Your task to perform on an android device: Clear all items from cart on walmart.com. Image 0: 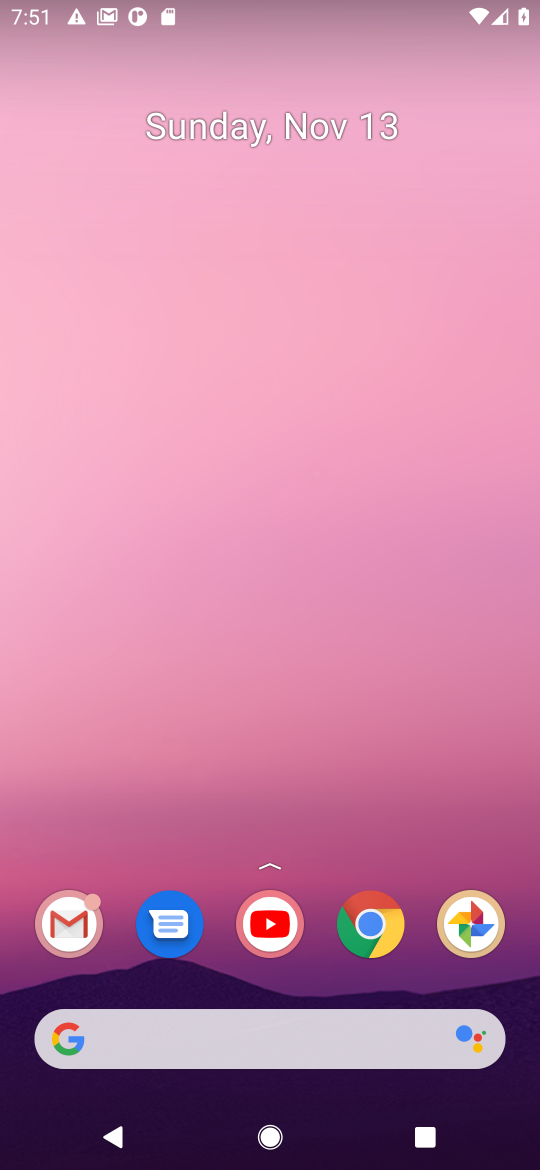
Step 0: click (379, 920)
Your task to perform on an android device: Clear all items from cart on walmart.com. Image 1: 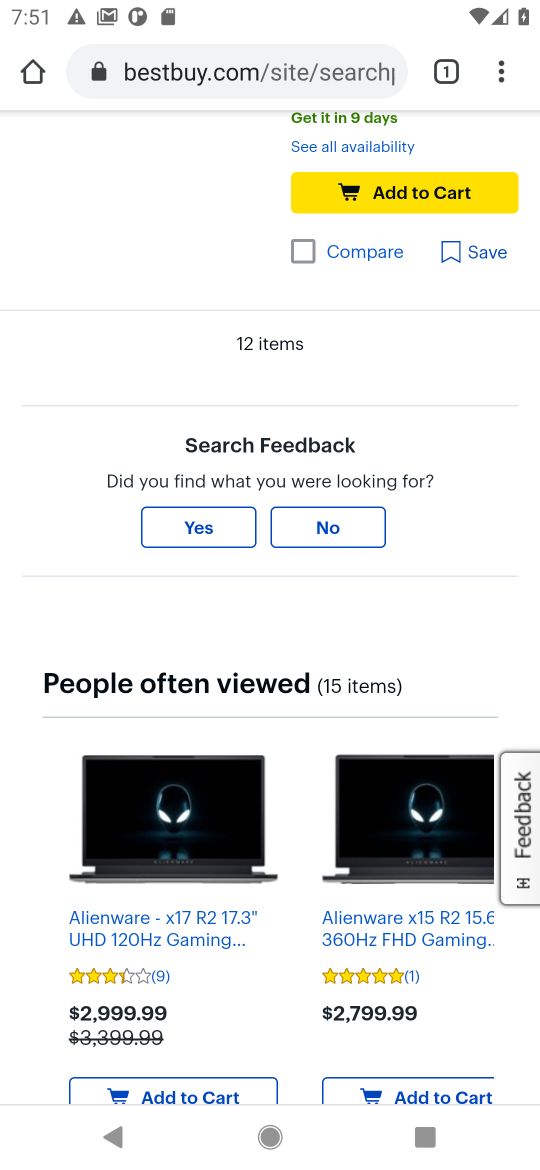
Step 1: click (280, 75)
Your task to perform on an android device: Clear all items from cart on walmart.com. Image 2: 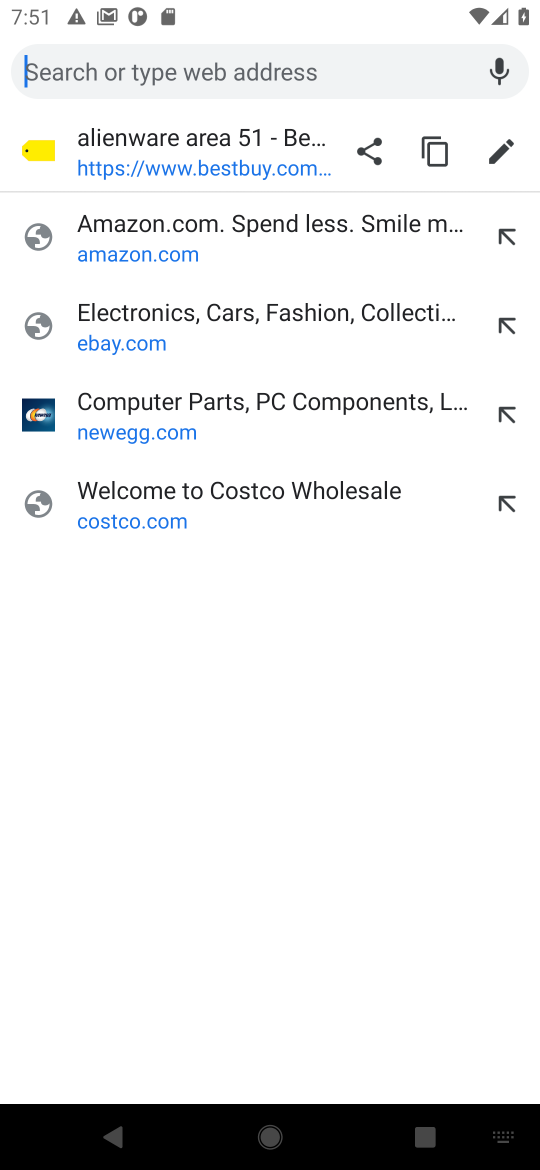
Step 2: type "walmart"
Your task to perform on an android device: Clear all items from cart on walmart.com. Image 3: 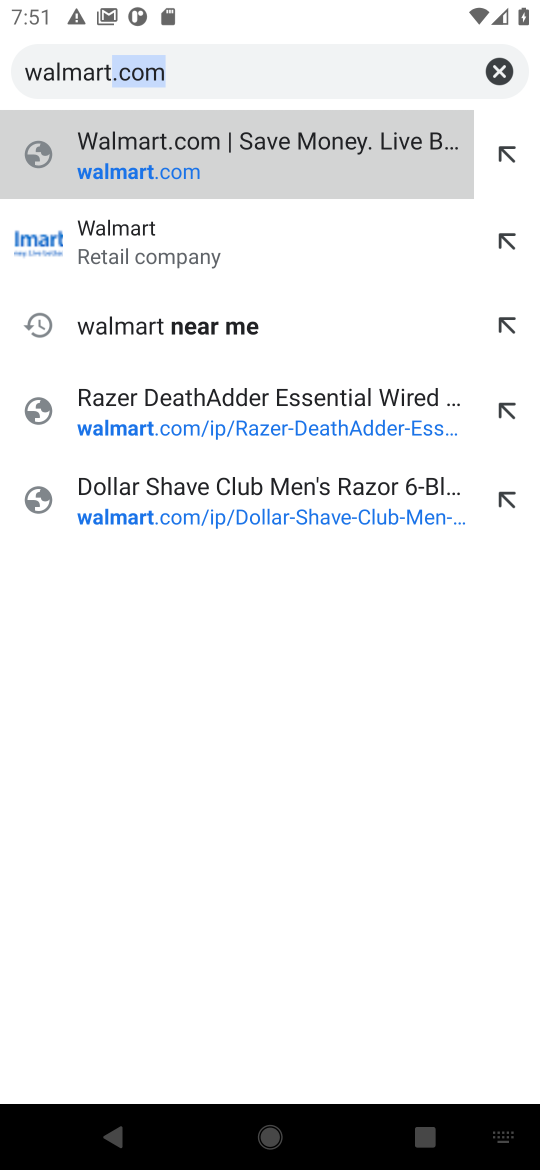
Step 3: click (137, 171)
Your task to perform on an android device: Clear all items from cart on walmart.com. Image 4: 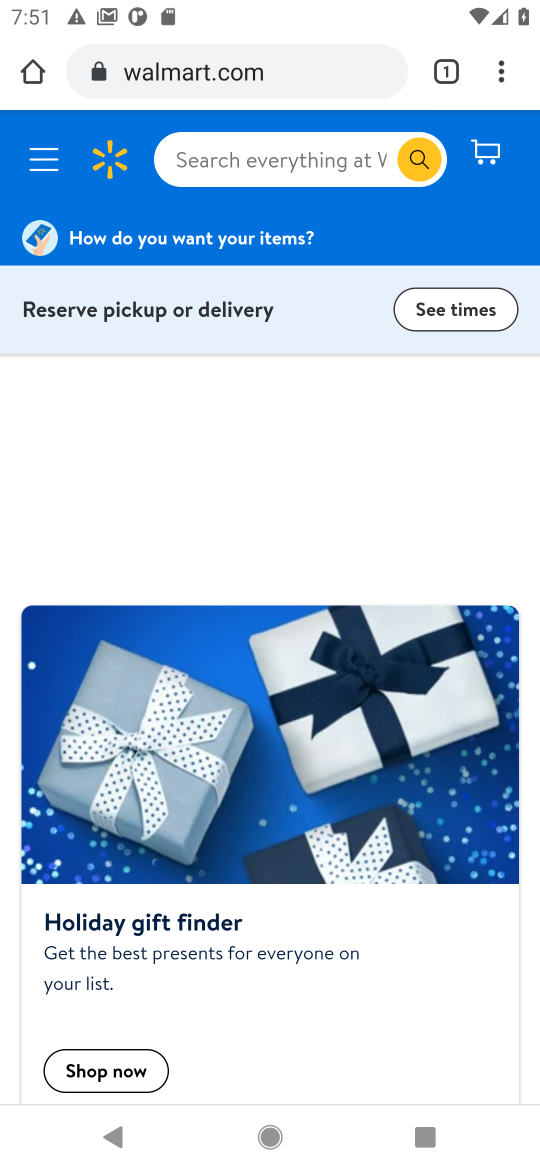
Step 4: click (482, 149)
Your task to perform on an android device: Clear all items from cart on walmart.com. Image 5: 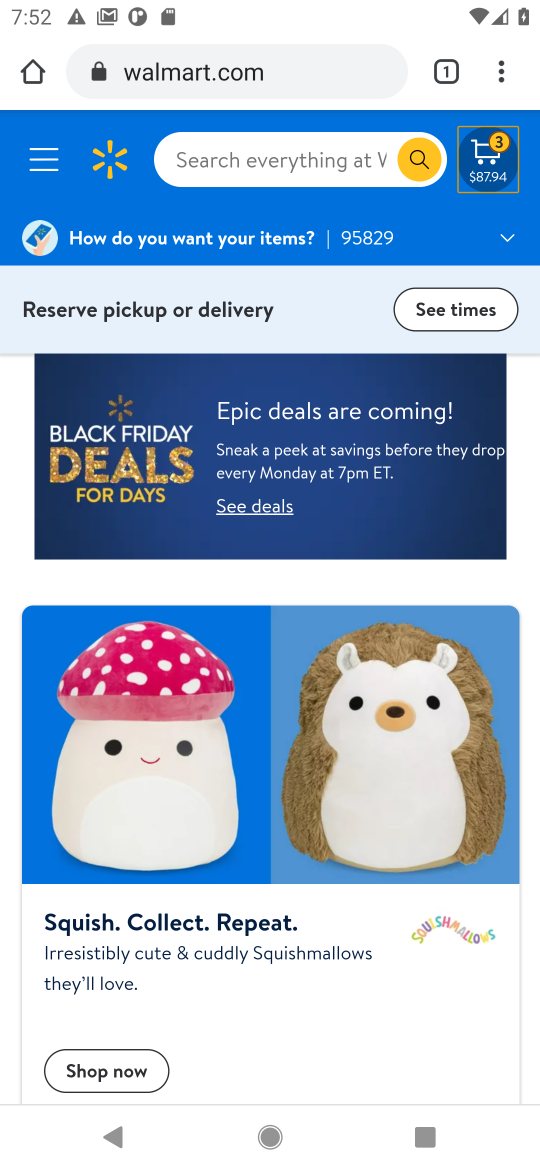
Step 5: click (501, 156)
Your task to perform on an android device: Clear all items from cart on walmart.com. Image 6: 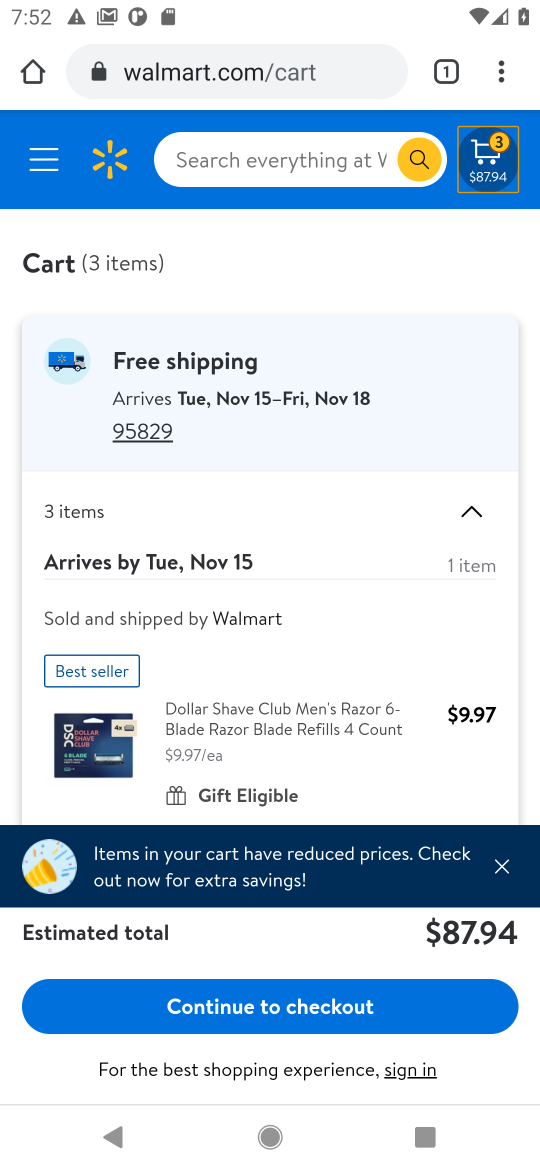
Step 6: drag from (442, 719) to (461, 292)
Your task to perform on an android device: Clear all items from cart on walmart.com. Image 7: 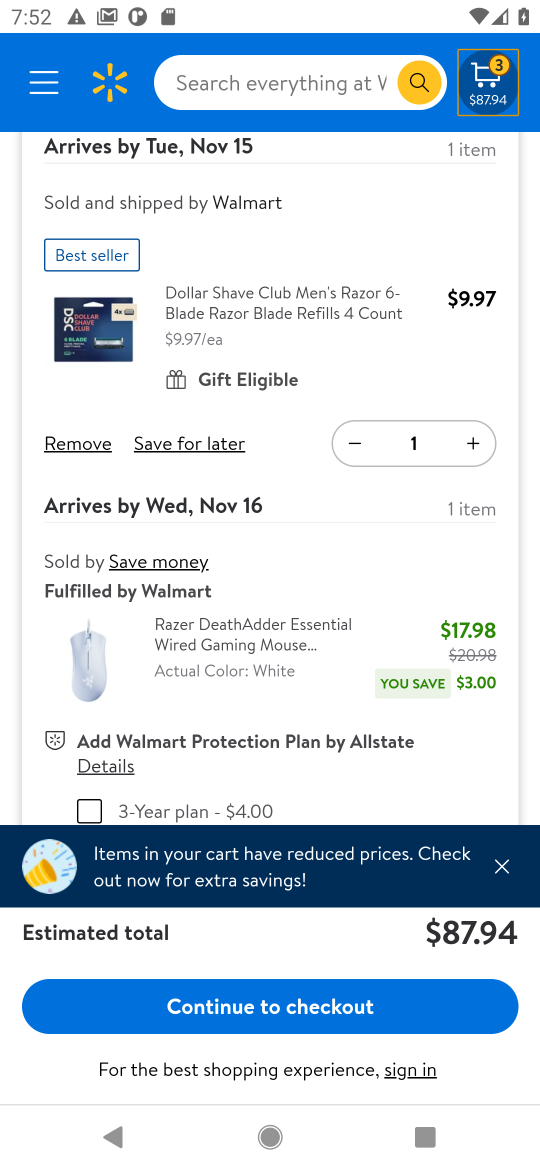
Step 7: click (501, 865)
Your task to perform on an android device: Clear all items from cart on walmart.com. Image 8: 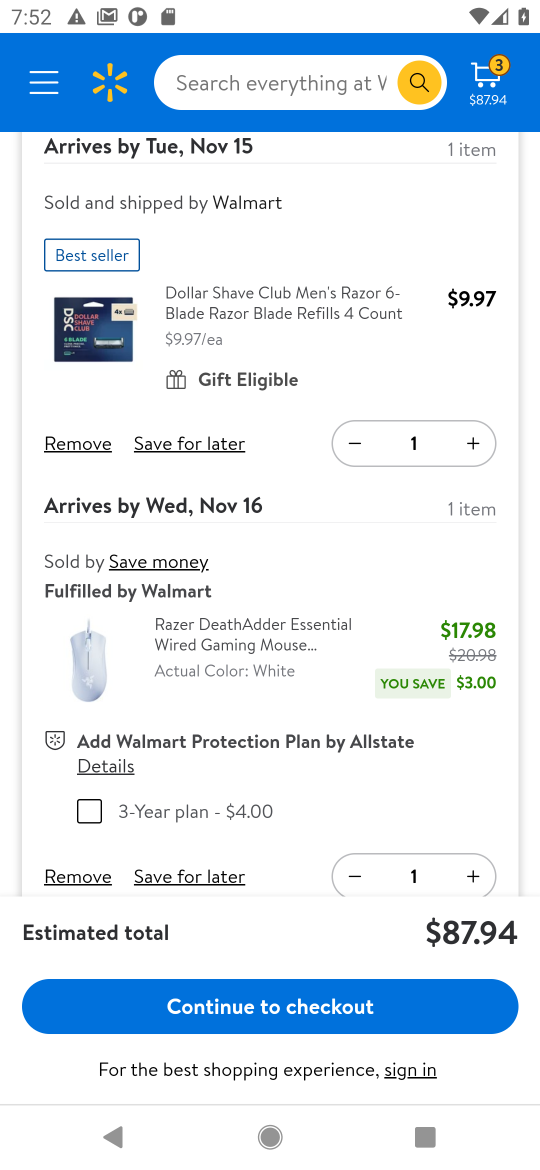
Step 8: drag from (315, 892) to (331, 667)
Your task to perform on an android device: Clear all items from cart on walmart.com. Image 9: 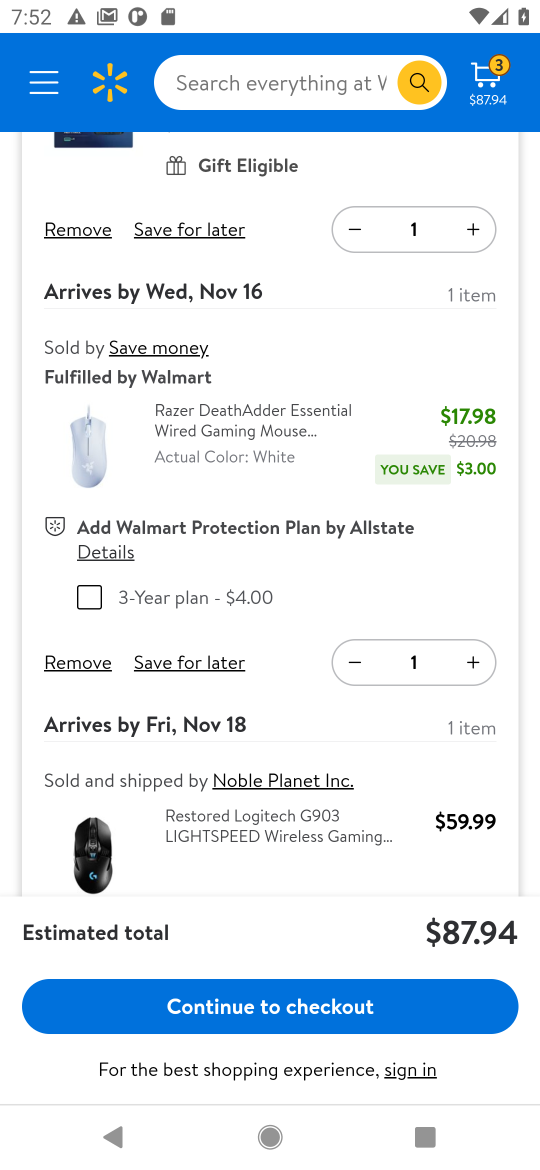
Step 9: click (77, 659)
Your task to perform on an android device: Clear all items from cart on walmart.com. Image 10: 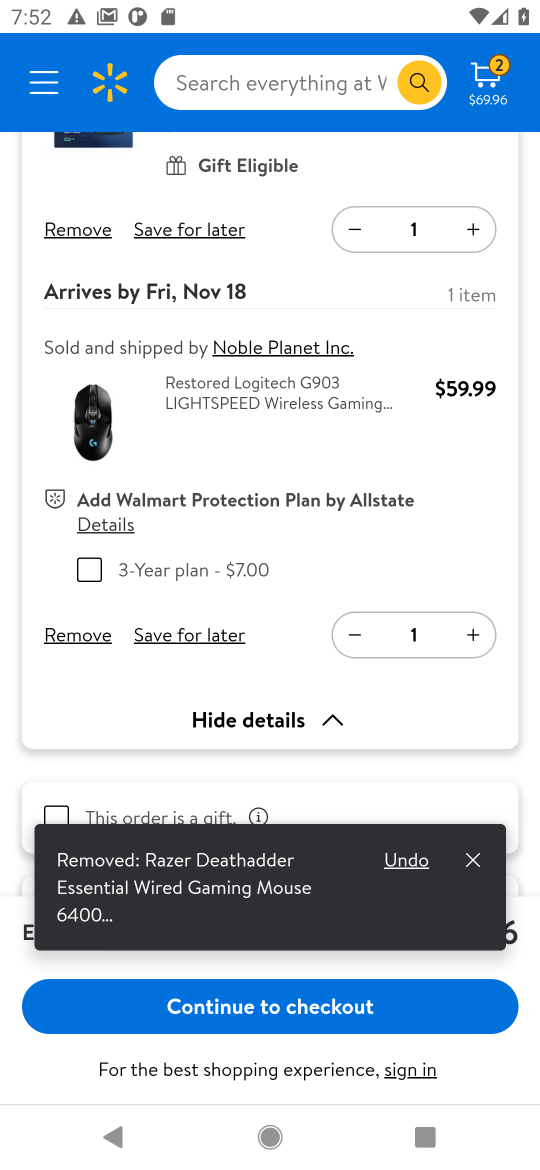
Step 10: click (81, 644)
Your task to perform on an android device: Clear all items from cart on walmart.com. Image 11: 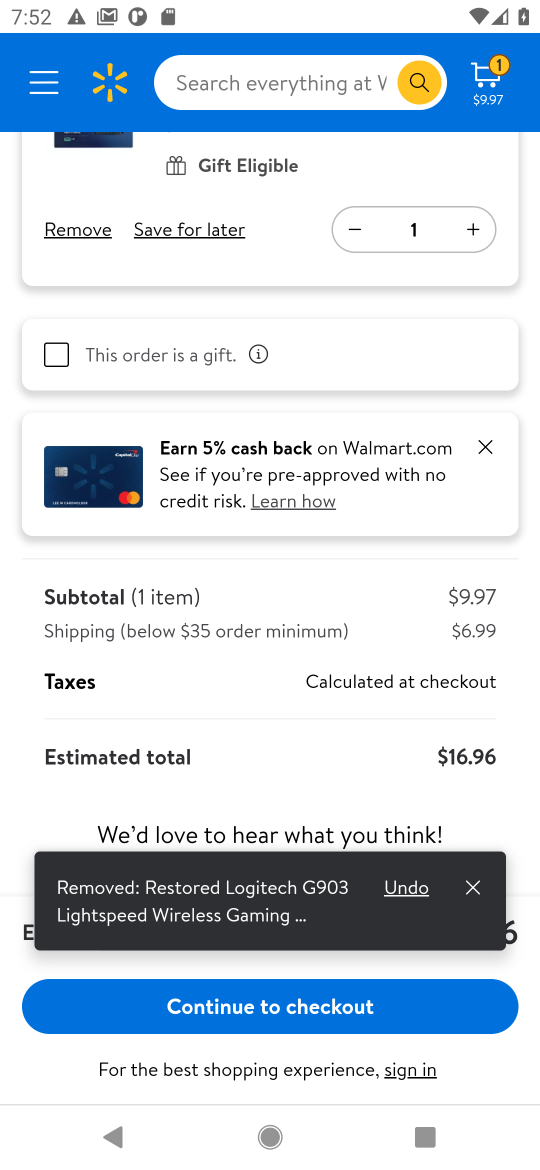
Step 11: click (73, 235)
Your task to perform on an android device: Clear all items from cart on walmart.com. Image 12: 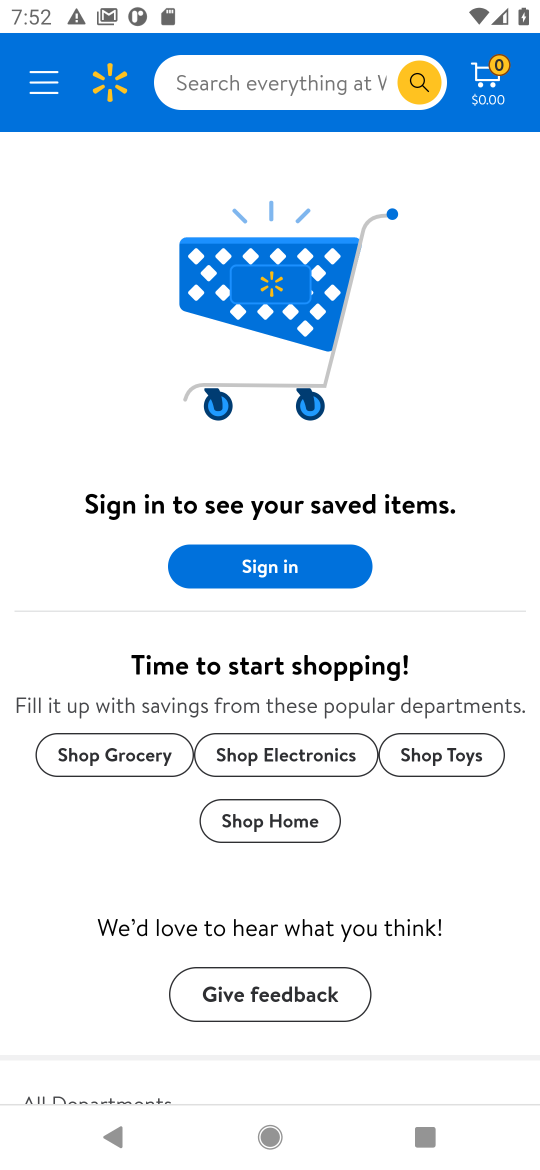
Step 12: task complete